Your task to perform on an android device: turn on showing notifications on the lock screen Image 0: 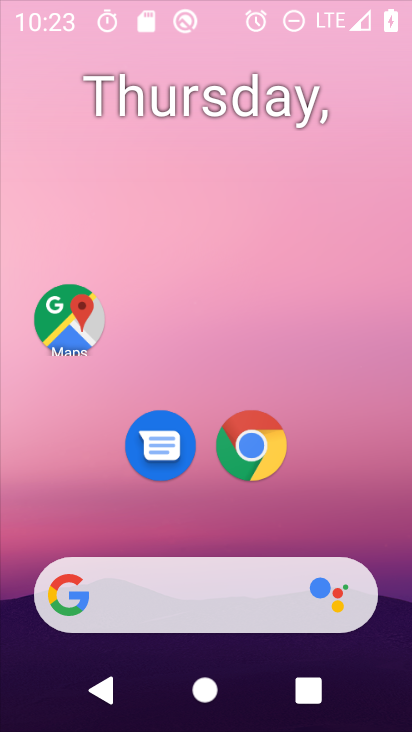
Step 0: click (271, 156)
Your task to perform on an android device: turn on showing notifications on the lock screen Image 1: 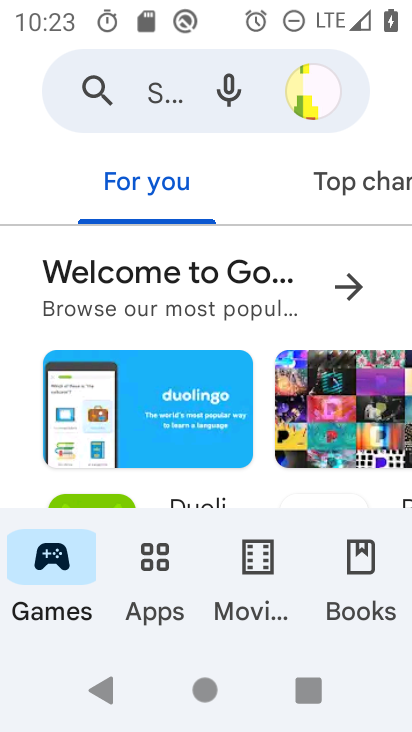
Step 1: press home button
Your task to perform on an android device: turn on showing notifications on the lock screen Image 2: 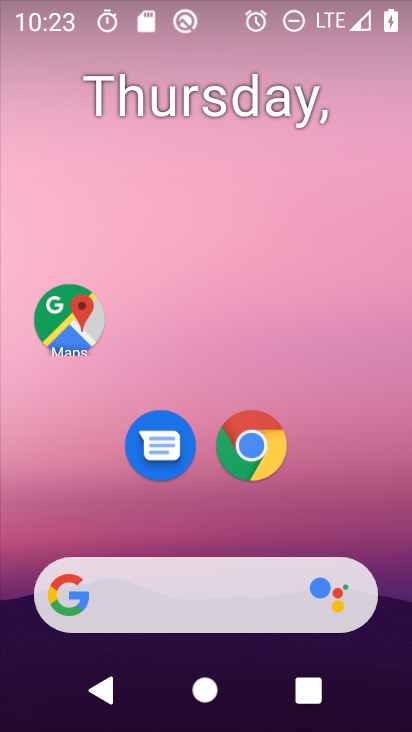
Step 2: drag from (233, 557) to (261, 84)
Your task to perform on an android device: turn on showing notifications on the lock screen Image 3: 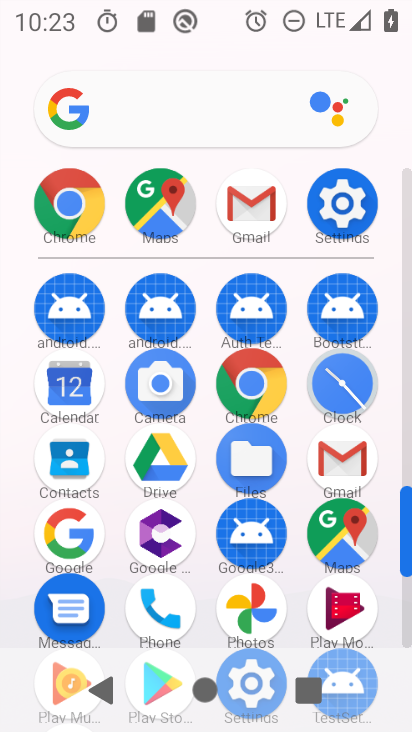
Step 3: click (350, 195)
Your task to perform on an android device: turn on showing notifications on the lock screen Image 4: 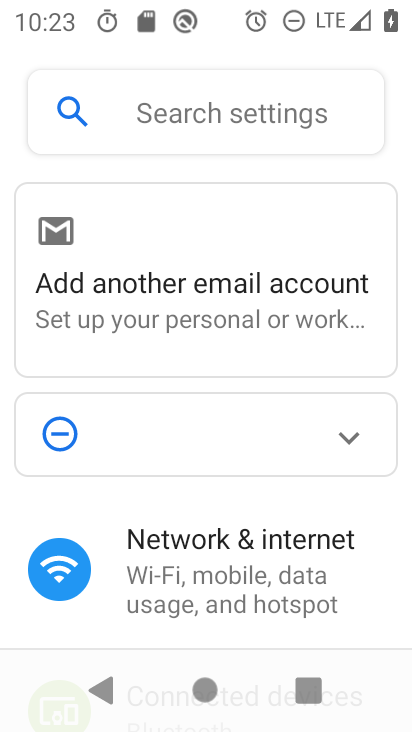
Step 4: drag from (239, 491) to (292, 103)
Your task to perform on an android device: turn on showing notifications on the lock screen Image 5: 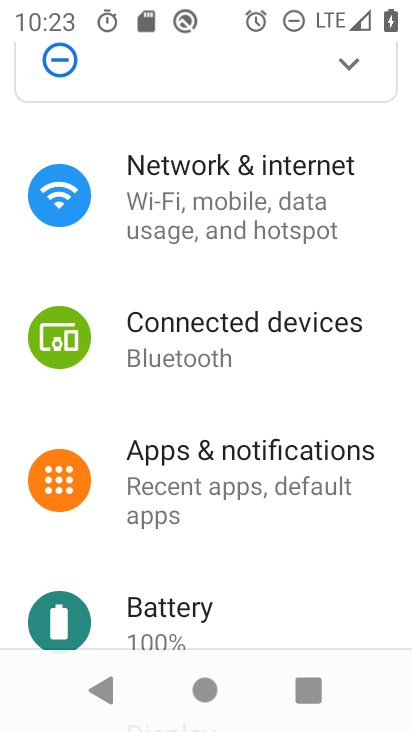
Step 5: click (228, 462)
Your task to perform on an android device: turn on showing notifications on the lock screen Image 6: 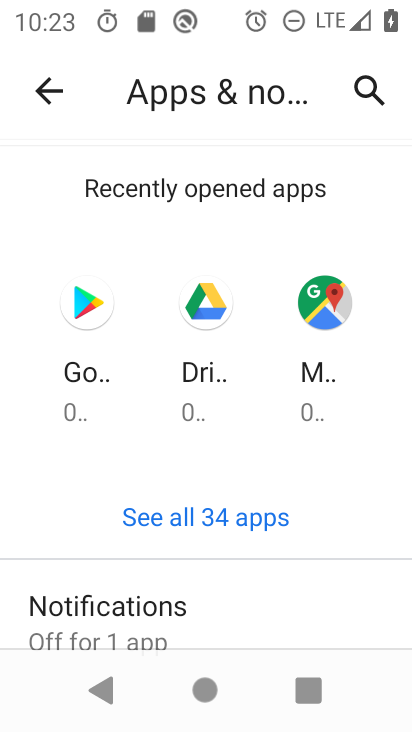
Step 6: drag from (216, 618) to (268, 192)
Your task to perform on an android device: turn on showing notifications on the lock screen Image 7: 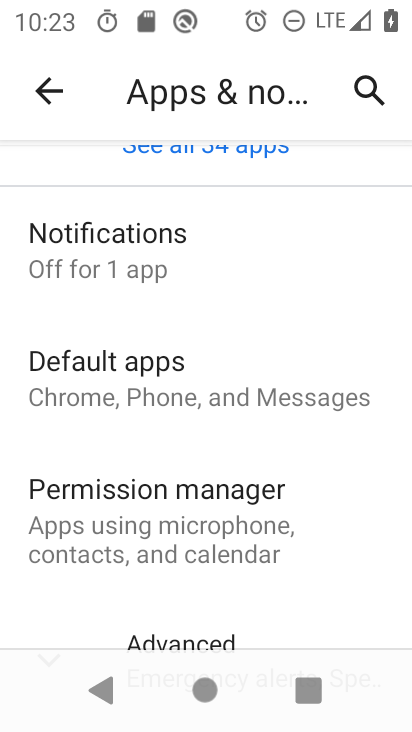
Step 7: click (204, 240)
Your task to perform on an android device: turn on showing notifications on the lock screen Image 8: 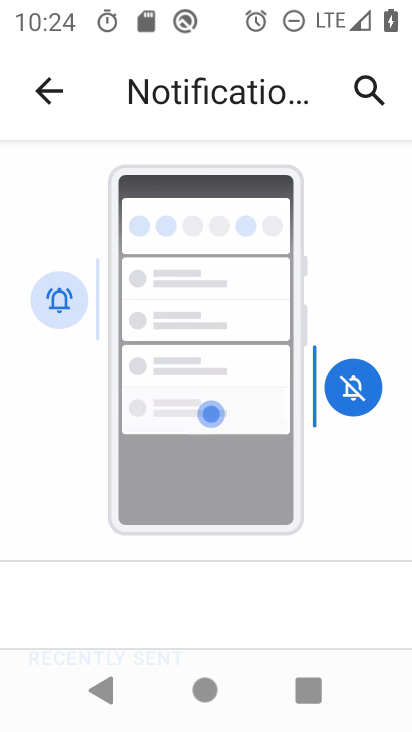
Step 8: drag from (212, 509) to (387, 108)
Your task to perform on an android device: turn on showing notifications on the lock screen Image 9: 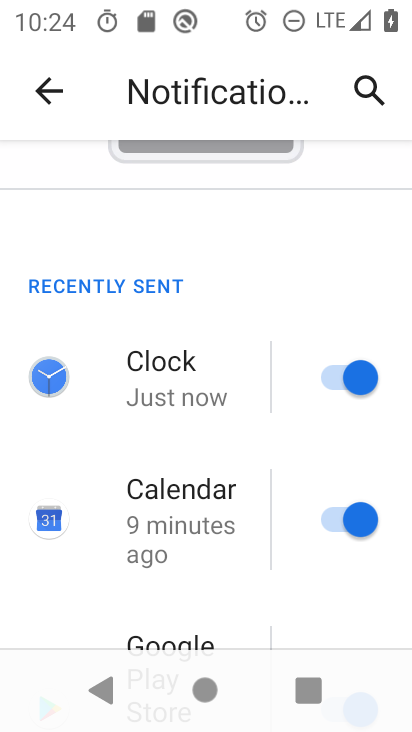
Step 9: drag from (191, 548) to (272, 231)
Your task to perform on an android device: turn on showing notifications on the lock screen Image 10: 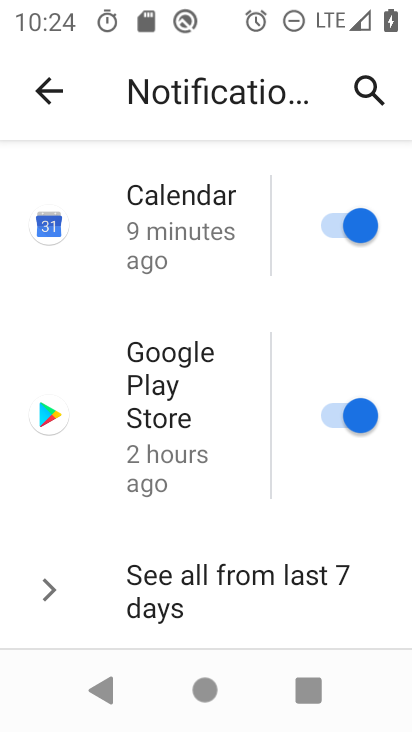
Step 10: drag from (227, 509) to (353, 197)
Your task to perform on an android device: turn on showing notifications on the lock screen Image 11: 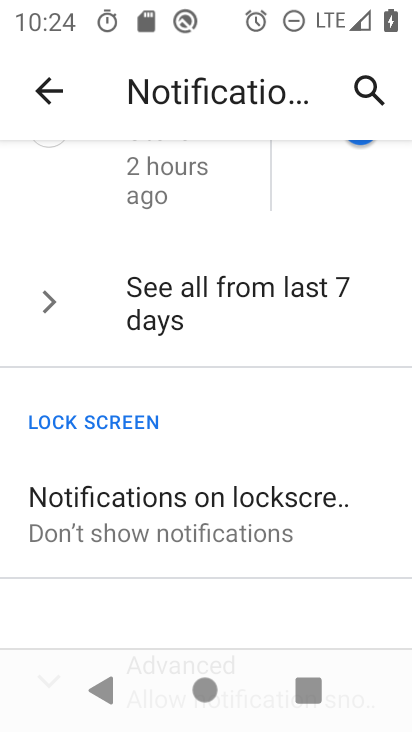
Step 11: click (213, 523)
Your task to perform on an android device: turn on showing notifications on the lock screen Image 12: 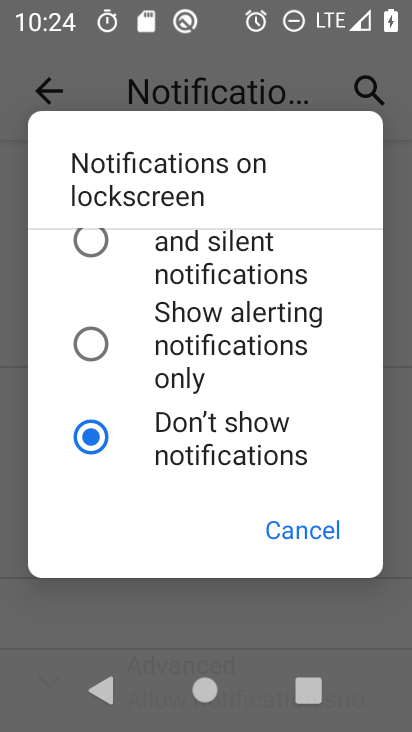
Step 12: click (179, 326)
Your task to perform on an android device: turn on showing notifications on the lock screen Image 13: 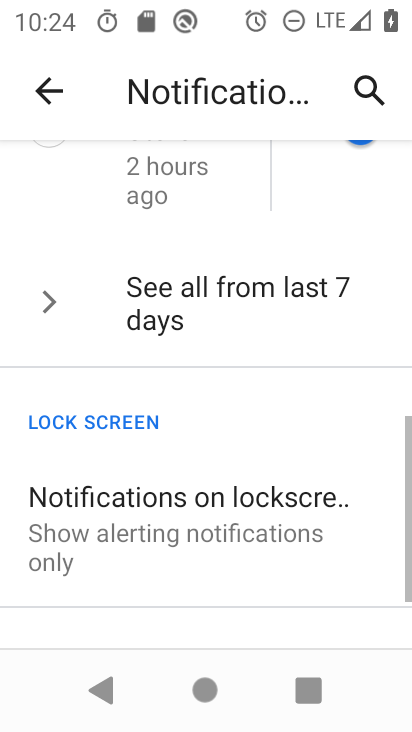
Step 13: task complete